Your task to perform on an android device: What's the weather going to be tomorrow? Image 0: 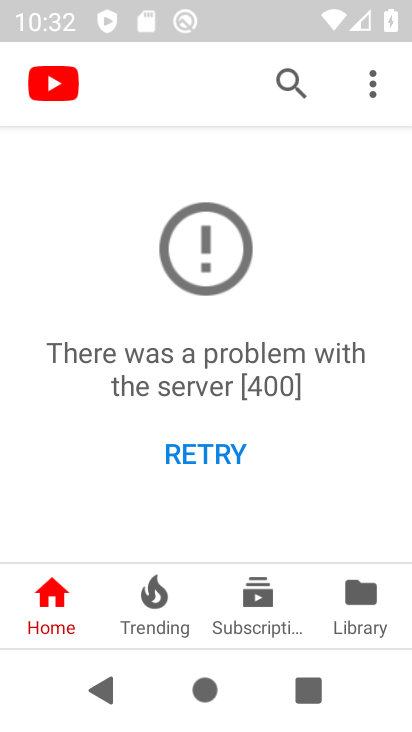
Step 0: press home button
Your task to perform on an android device: What's the weather going to be tomorrow? Image 1: 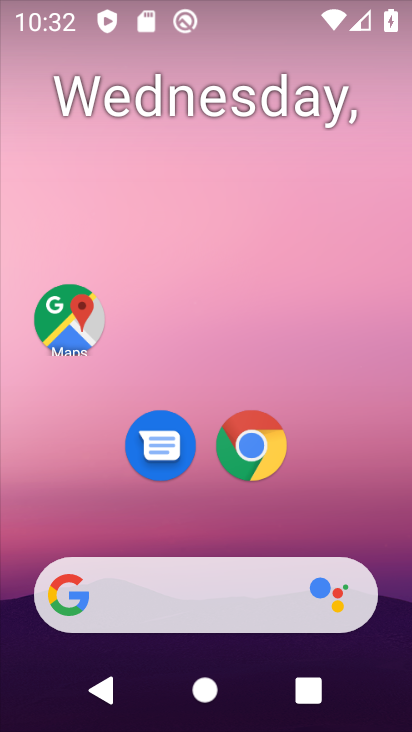
Step 1: click (210, 603)
Your task to perform on an android device: What's the weather going to be tomorrow? Image 2: 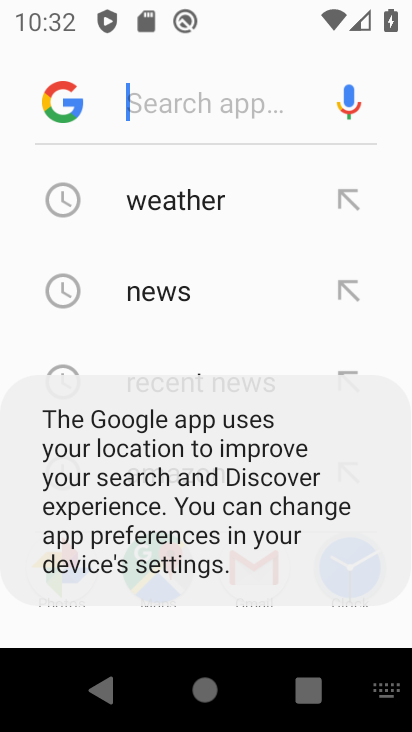
Step 2: click (139, 200)
Your task to perform on an android device: What's the weather going to be tomorrow? Image 3: 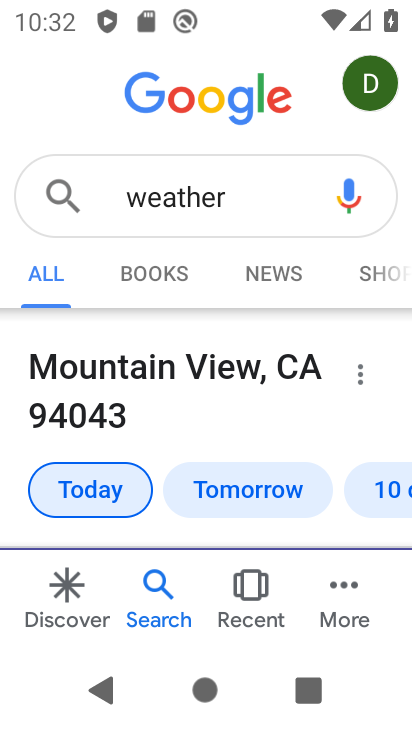
Step 3: click (254, 493)
Your task to perform on an android device: What's the weather going to be tomorrow? Image 4: 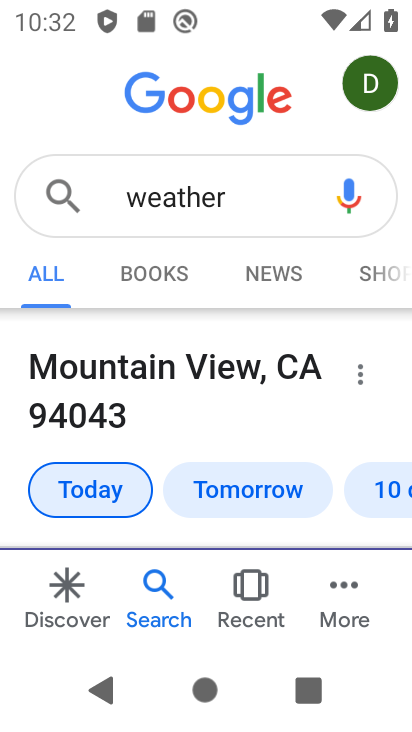
Step 4: click (259, 492)
Your task to perform on an android device: What's the weather going to be tomorrow? Image 5: 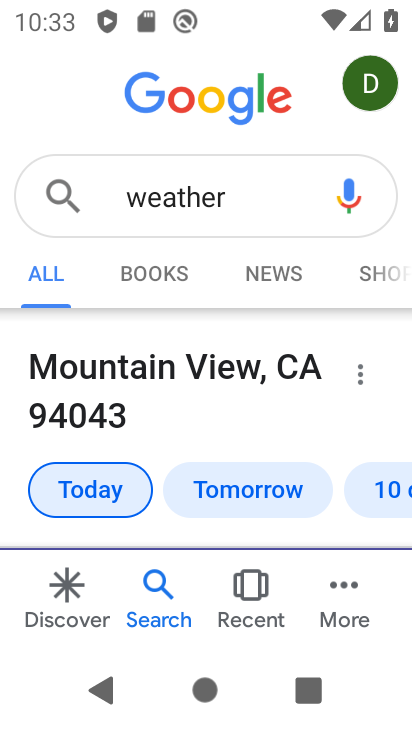
Step 5: click (234, 482)
Your task to perform on an android device: What's the weather going to be tomorrow? Image 6: 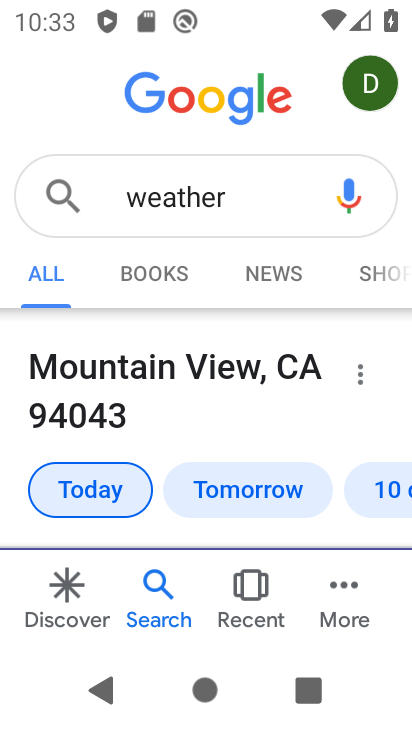
Step 6: click (221, 487)
Your task to perform on an android device: What's the weather going to be tomorrow? Image 7: 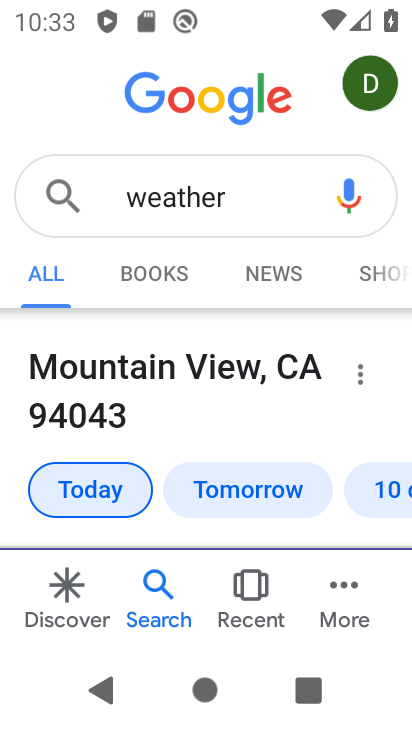
Step 7: task complete